Your task to perform on an android device: turn notification dots off Image 0: 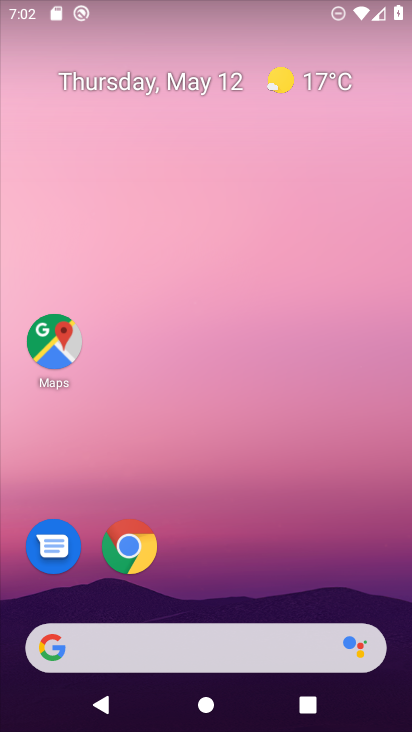
Step 0: drag from (284, 500) to (202, 23)
Your task to perform on an android device: turn notification dots off Image 1: 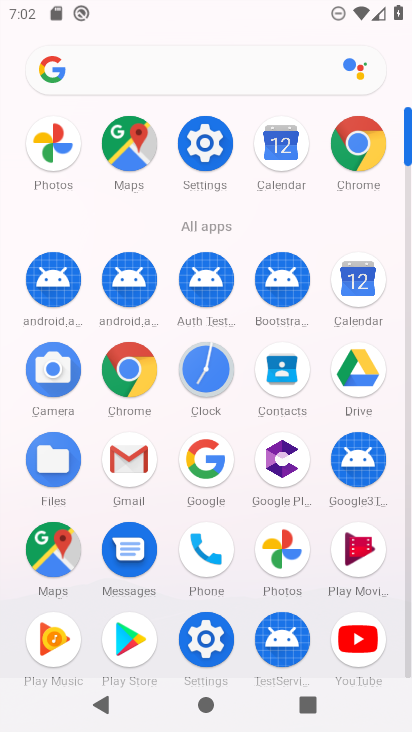
Step 1: click (199, 152)
Your task to perform on an android device: turn notification dots off Image 2: 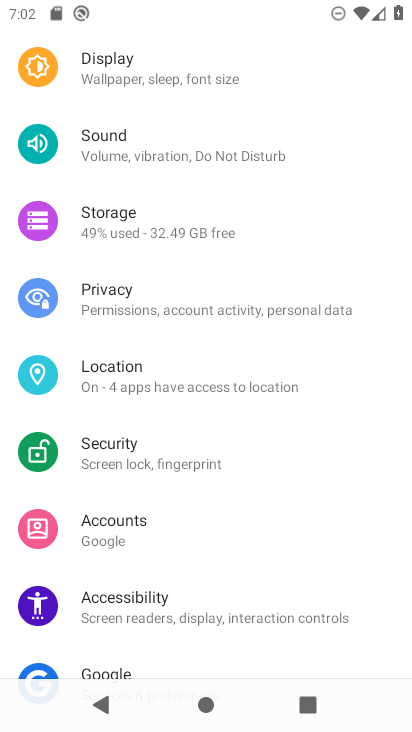
Step 2: drag from (234, 351) to (254, 515)
Your task to perform on an android device: turn notification dots off Image 3: 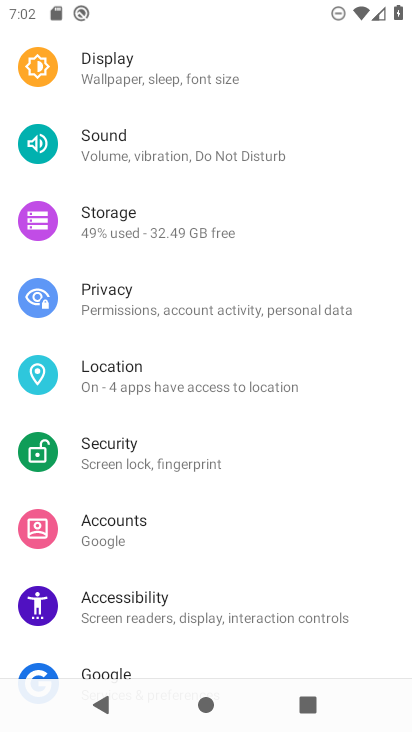
Step 3: drag from (150, 120) to (150, 561)
Your task to perform on an android device: turn notification dots off Image 4: 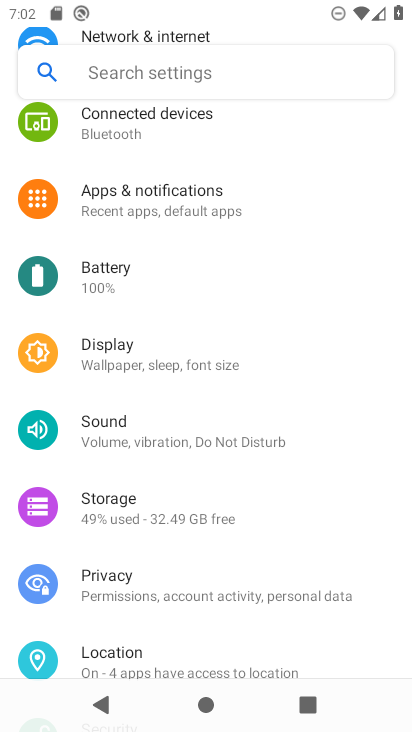
Step 4: click (136, 186)
Your task to perform on an android device: turn notification dots off Image 5: 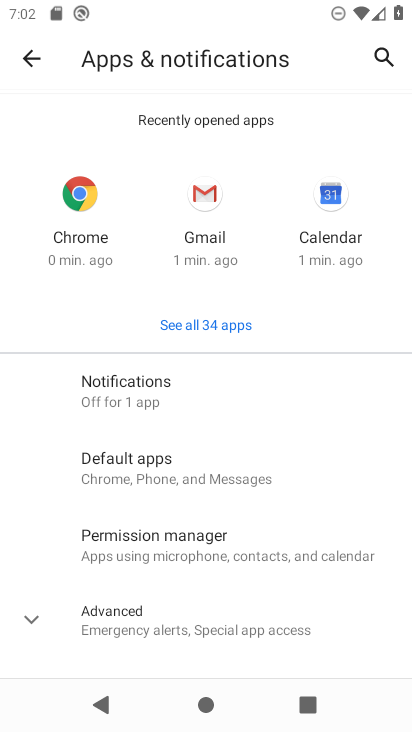
Step 5: click (123, 381)
Your task to perform on an android device: turn notification dots off Image 6: 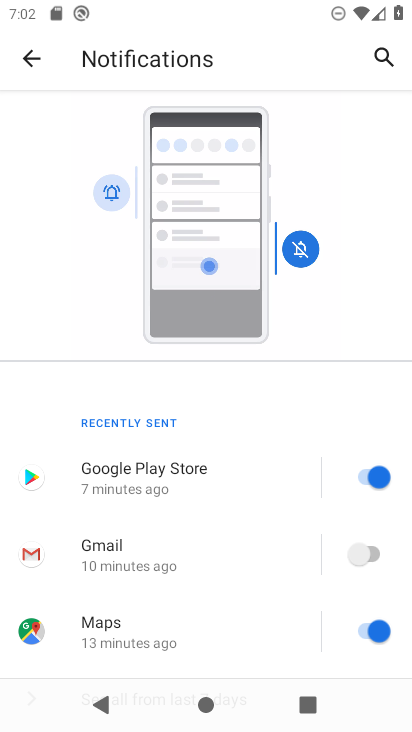
Step 6: drag from (183, 562) to (90, 153)
Your task to perform on an android device: turn notification dots off Image 7: 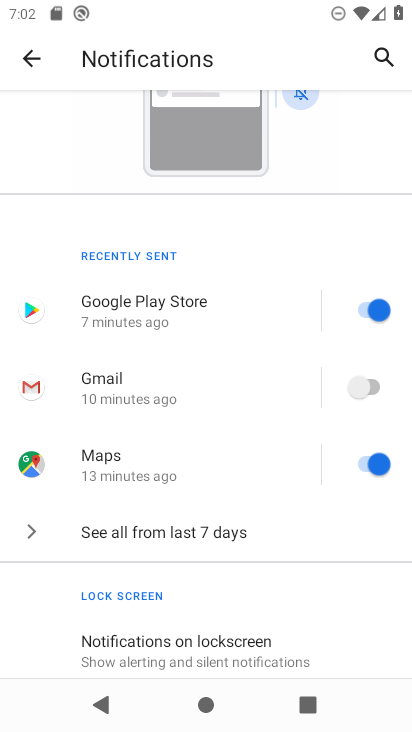
Step 7: drag from (209, 576) to (173, 306)
Your task to perform on an android device: turn notification dots off Image 8: 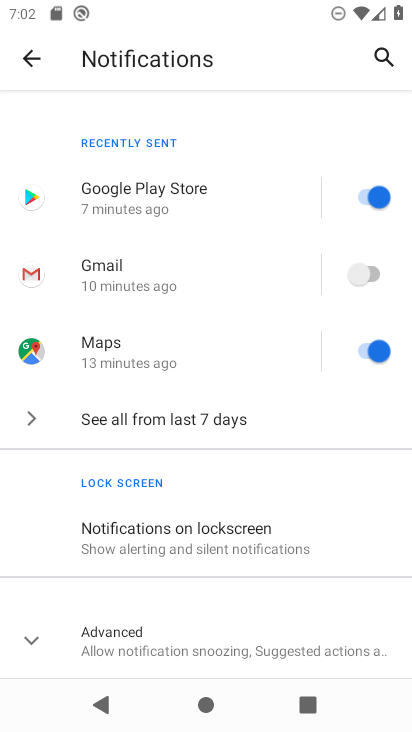
Step 8: click (68, 640)
Your task to perform on an android device: turn notification dots off Image 9: 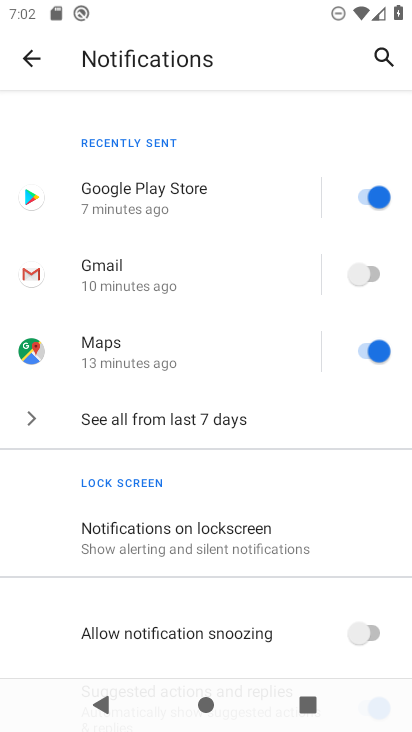
Step 9: drag from (204, 559) to (126, 181)
Your task to perform on an android device: turn notification dots off Image 10: 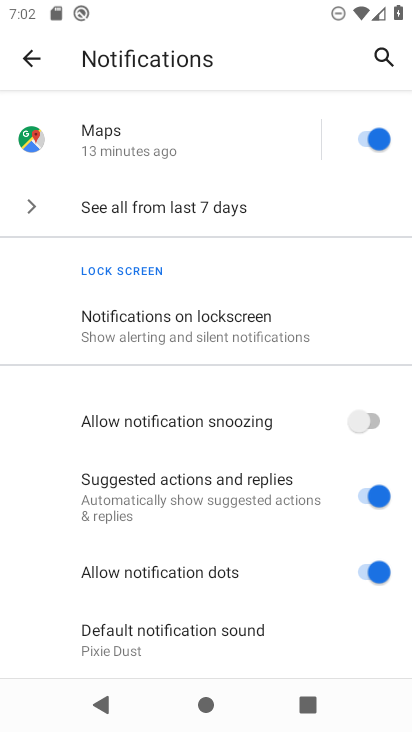
Step 10: click (374, 569)
Your task to perform on an android device: turn notification dots off Image 11: 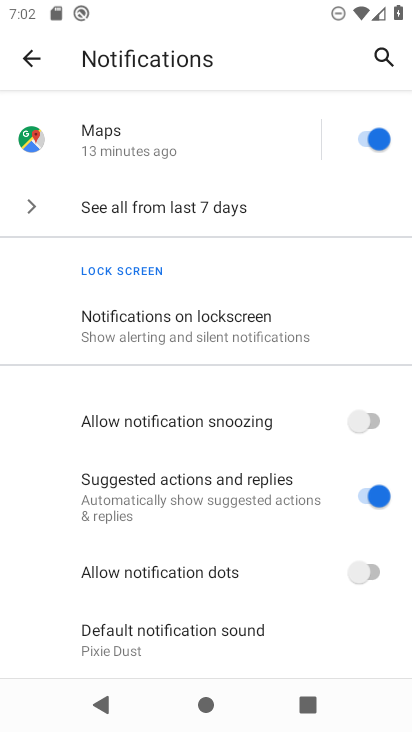
Step 11: task complete